Your task to perform on an android device: toggle sleep mode Image 0: 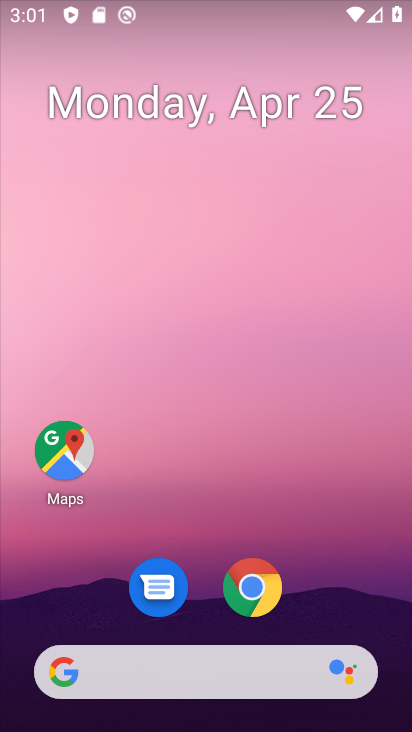
Step 0: drag from (294, 629) to (80, 3)
Your task to perform on an android device: toggle sleep mode Image 1: 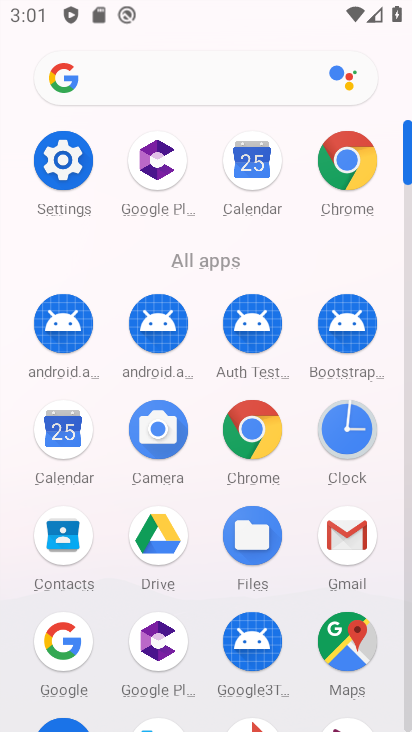
Step 1: click (72, 164)
Your task to perform on an android device: toggle sleep mode Image 2: 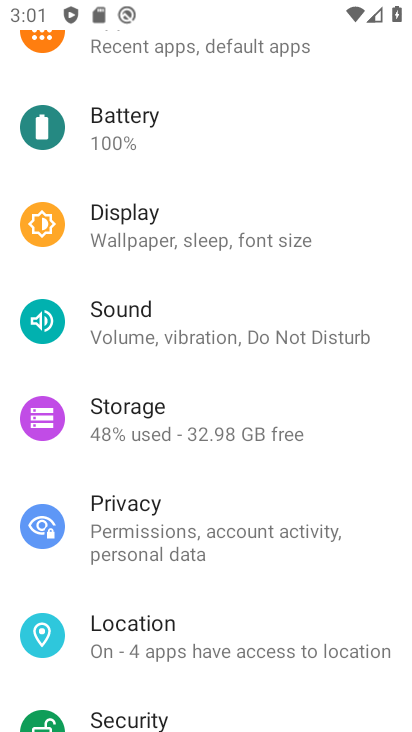
Step 2: click (220, 647)
Your task to perform on an android device: toggle sleep mode Image 3: 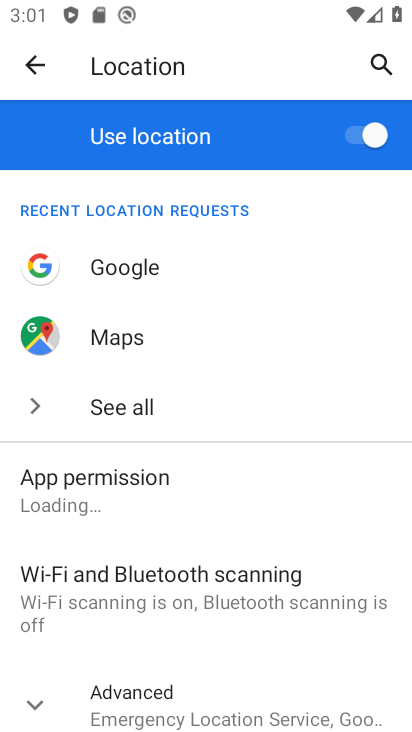
Step 3: drag from (220, 647) to (265, 306)
Your task to perform on an android device: toggle sleep mode Image 4: 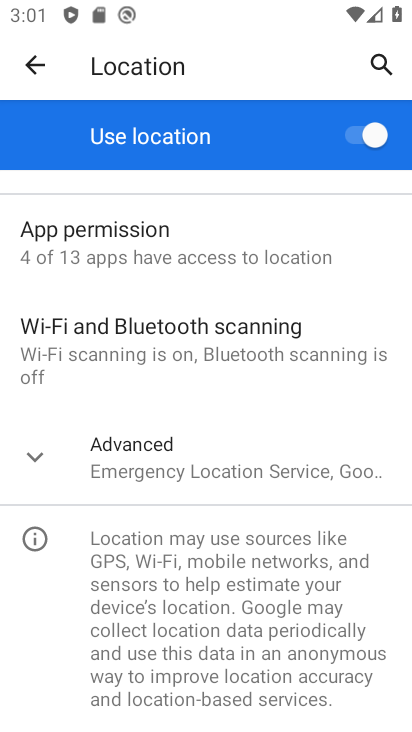
Step 4: click (175, 465)
Your task to perform on an android device: toggle sleep mode Image 5: 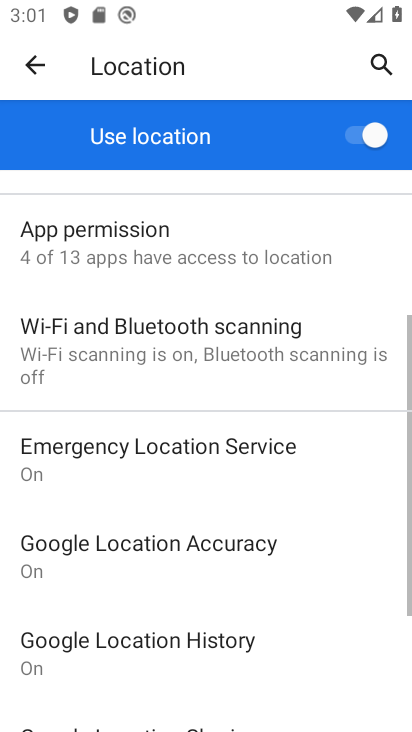
Step 5: task complete